Your task to perform on an android device: Open wifi settings Image 0: 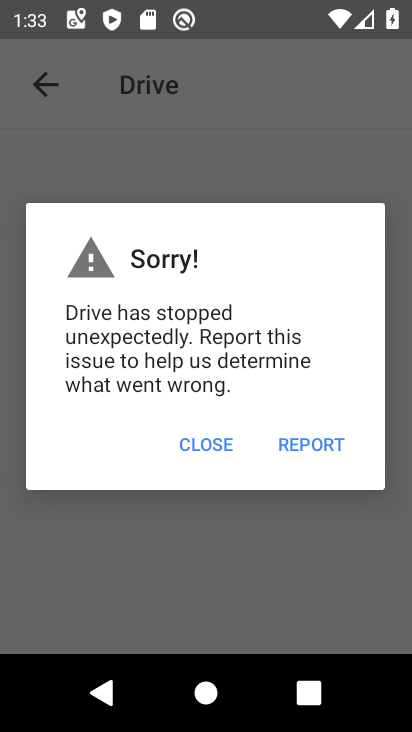
Step 0: press home button
Your task to perform on an android device: Open wifi settings Image 1: 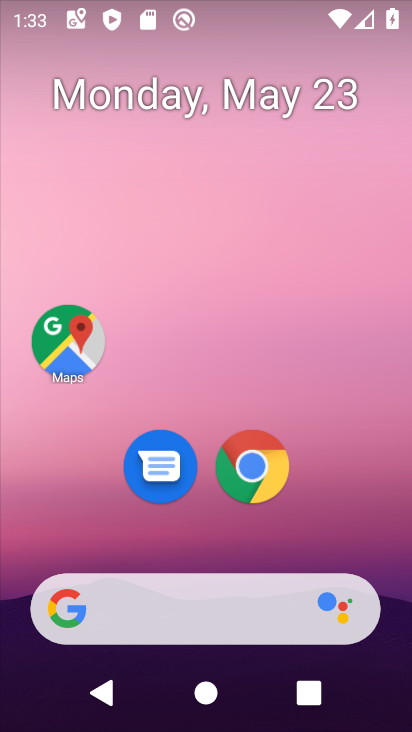
Step 1: drag from (331, 530) to (276, 181)
Your task to perform on an android device: Open wifi settings Image 2: 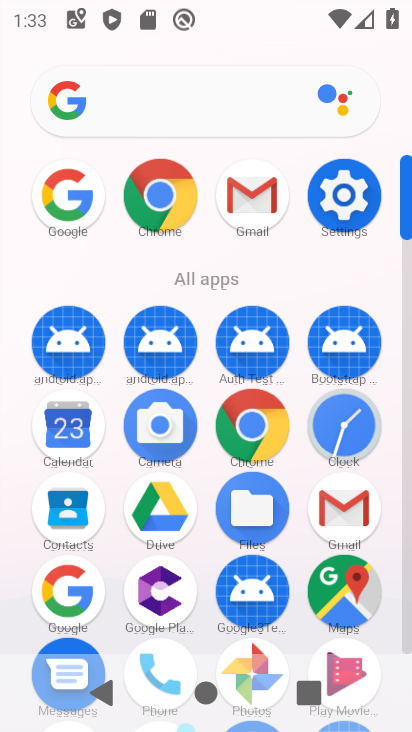
Step 2: click (342, 193)
Your task to perform on an android device: Open wifi settings Image 3: 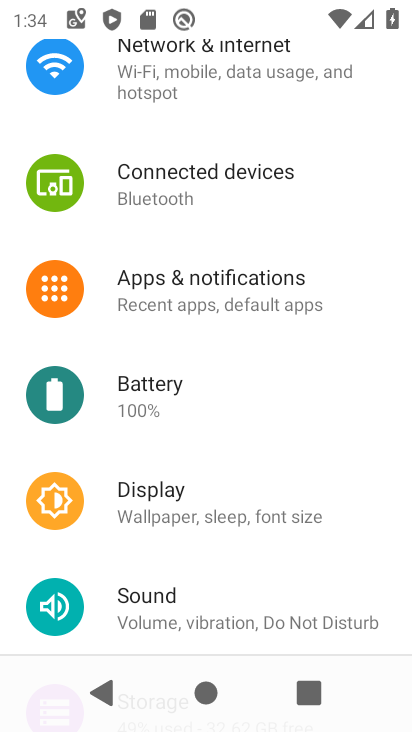
Step 3: drag from (219, 164) to (240, 309)
Your task to perform on an android device: Open wifi settings Image 4: 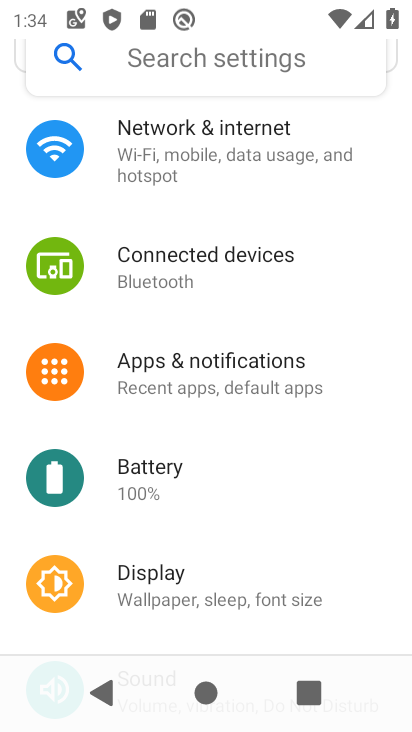
Step 4: click (210, 134)
Your task to perform on an android device: Open wifi settings Image 5: 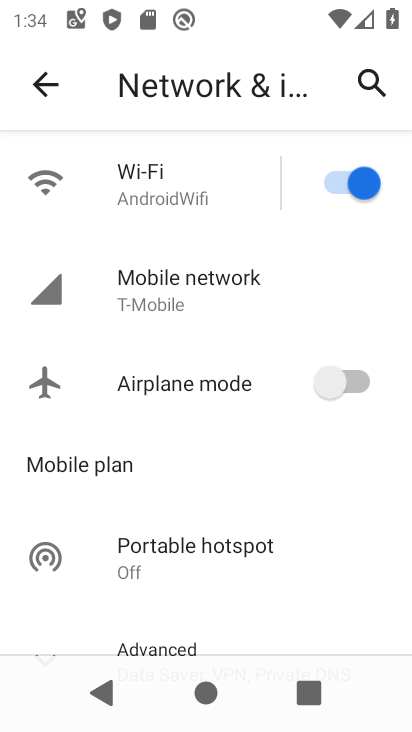
Step 5: click (146, 187)
Your task to perform on an android device: Open wifi settings Image 6: 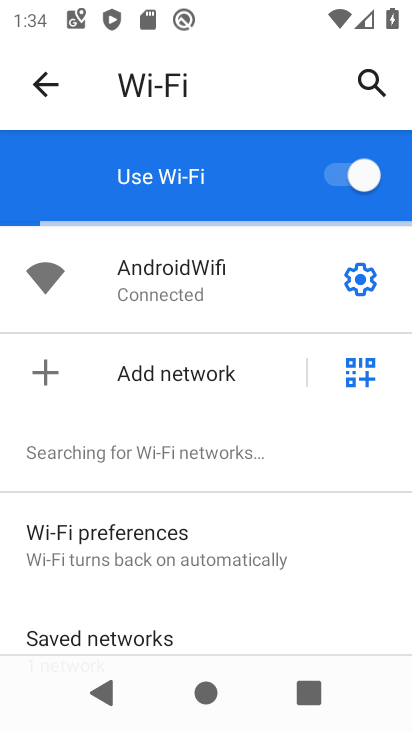
Step 6: click (361, 277)
Your task to perform on an android device: Open wifi settings Image 7: 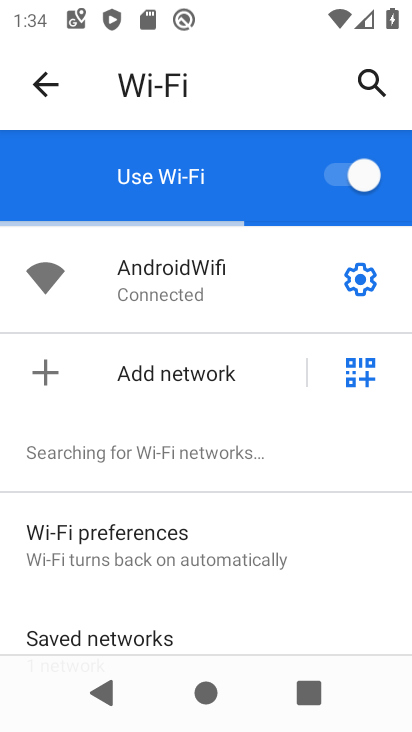
Step 7: click (361, 283)
Your task to perform on an android device: Open wifi settings Image 8: 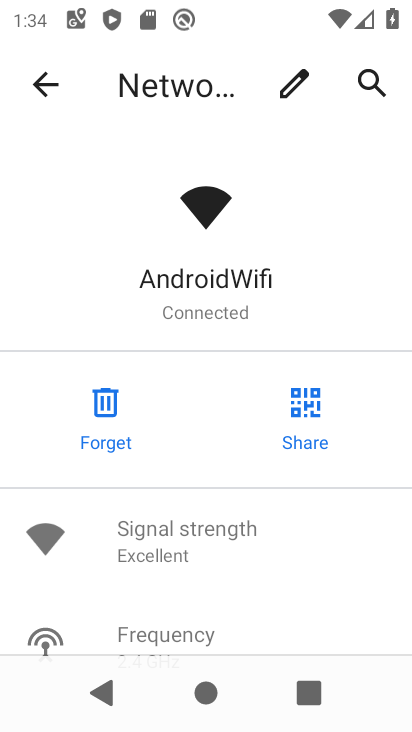
Step 8: task complete